Your task to perform on an android device: turn off priority inbox in the gmail app Image 0: 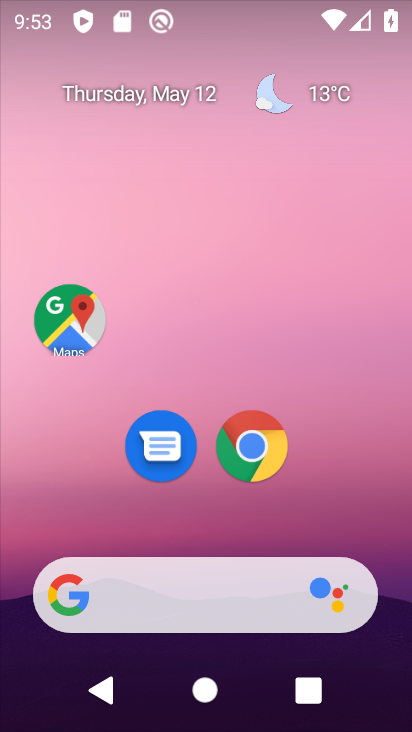
Step 0: drag from (215, 444) to (282, 32)
Your task to perform on an android device: turn off priority inbox in the gmail app Image 1: 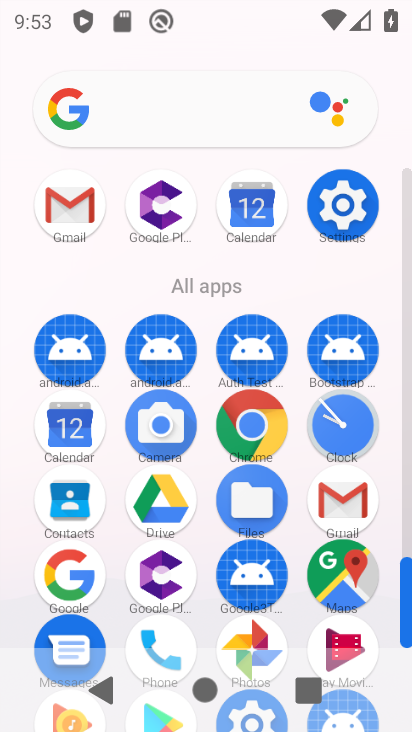
Step 1: click (61, 211)
Your task to perform on an android device: turn off priority inbox in the gmail app Image 2: 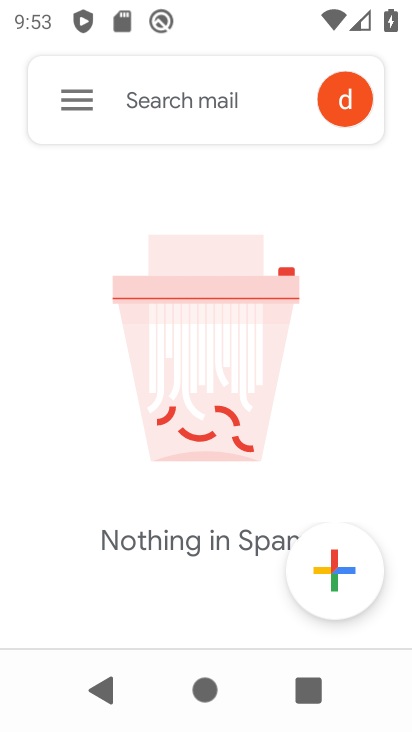
Step 2: click (75, 97)
Your task to perform on an android device: turn off priority inbox in the gmail app Image 3: 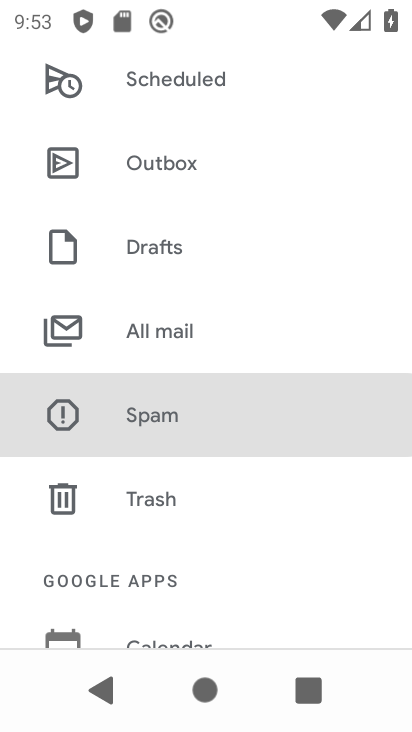
Step 3: drag from (159, 597) to (241, 75)
Your task to perform on an android device: turn off priority inbox in the gmail app Image 4: 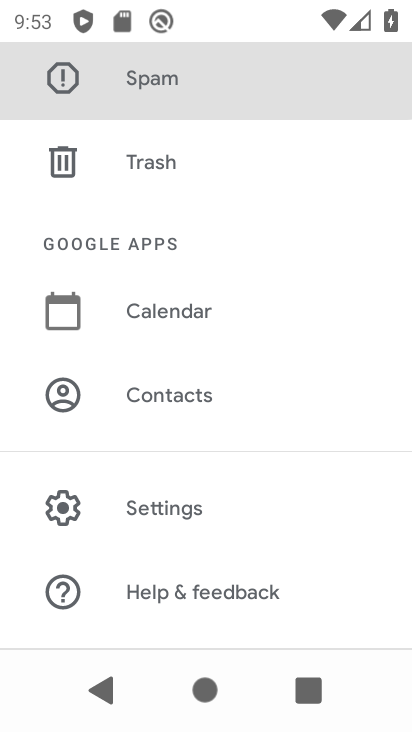
Step 4: click (184, 511)
Your task to perform on an android device: turn off priority inbox in the gmail app Image 5: 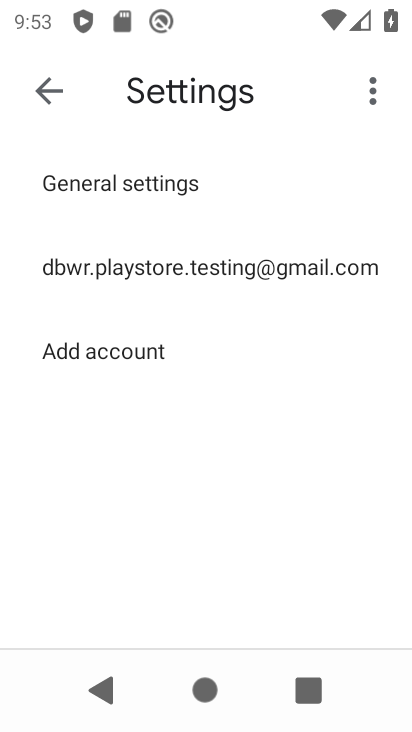
Step 5: click (182, 285)
Your task to perform on an android device: turn off priority inbox in the gmail app Image 6: 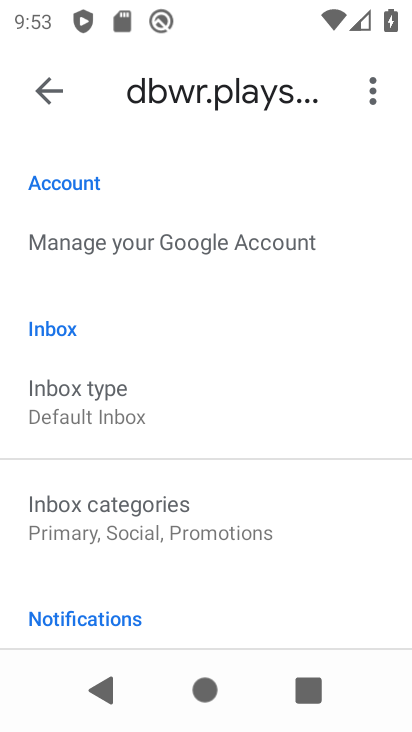
Step 6: click (155, 422)
Your task to perform on an android device: turn off priority inbox in the gmail app Image 7: 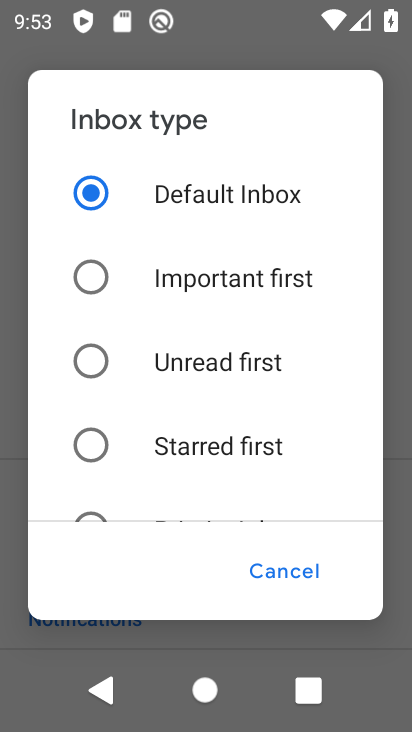
Step 7: task complete